Your task to perform on an android device: check the backup settings in the google photos Image 0: 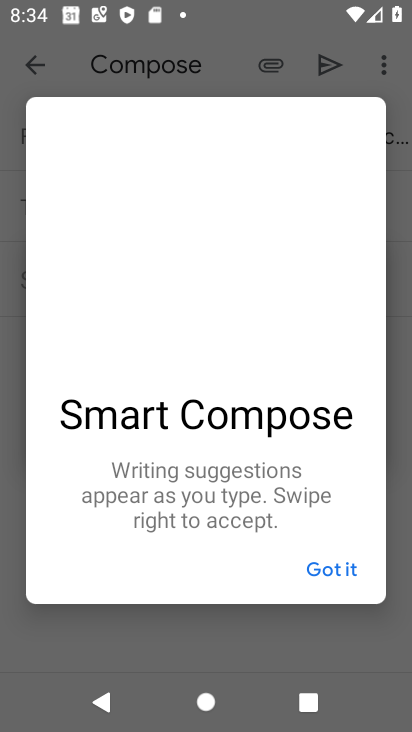
Step 0: press home button
Your task to perform on an android device: check the backup settings in the google photos Image 1: 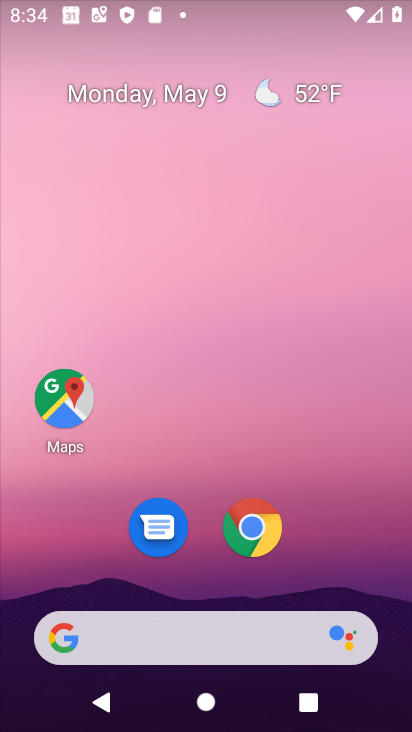
Step 1: drag from (220, 586) to (246, 77)
Your task to perform on an android device: check the backup settings in the google photos Image 2: 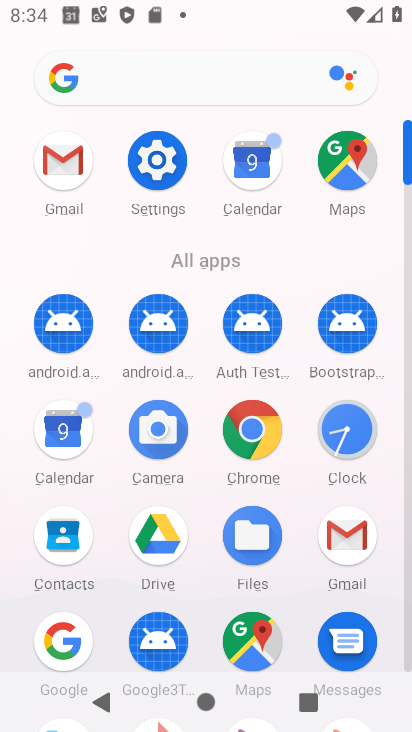
Step 2: click (157, 160)
Your task to perform on an android device: check the backup settings in the google photos Image 3: 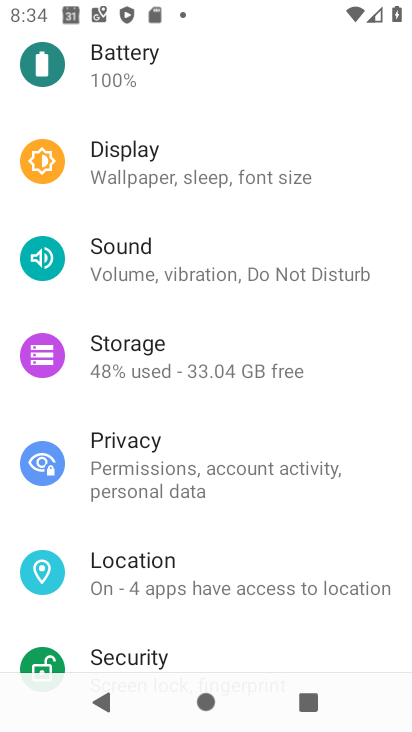
Step 3: drag from (214, 560) to (269, 13)
Your task to perform on an android device: check the backup settings in the google photos Image 4: 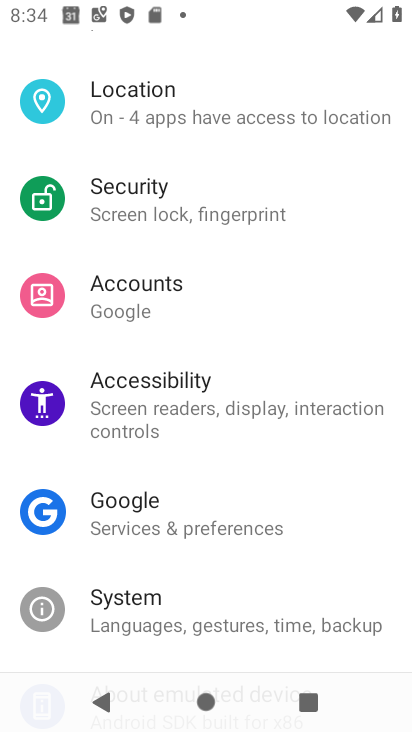
Step 4: click (162, 594)
Your task to perform on an android device: check the backup settings in the google photos Image 5: 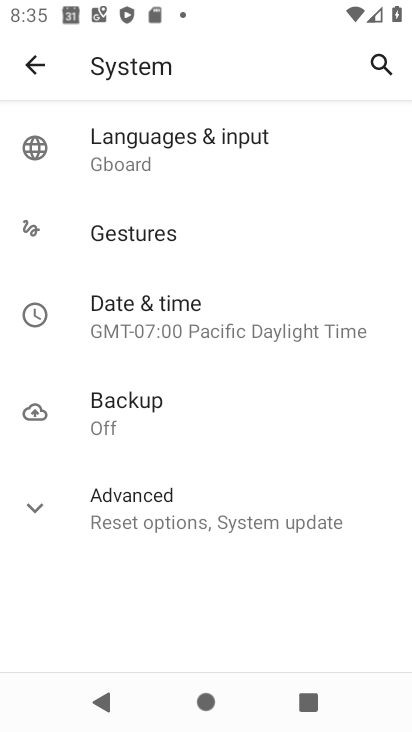
Step 5: click (150, 143)
Your task to perform on an android device: check the backup settings in the google photos Image 6: 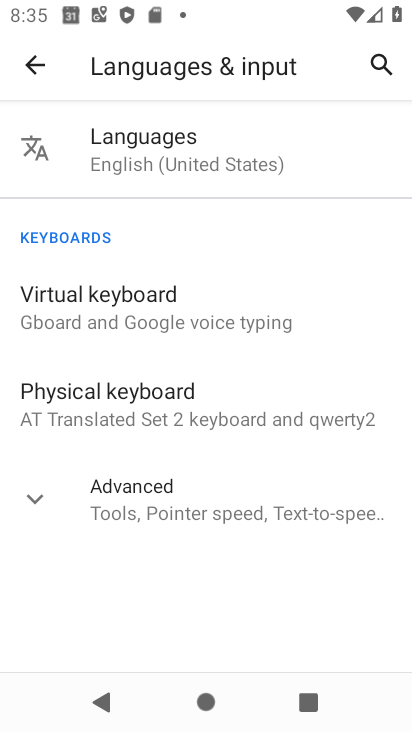
Step 6: click (104, 295)
Your task to perform on an android device: check the backup settings in the google photos Image 7: 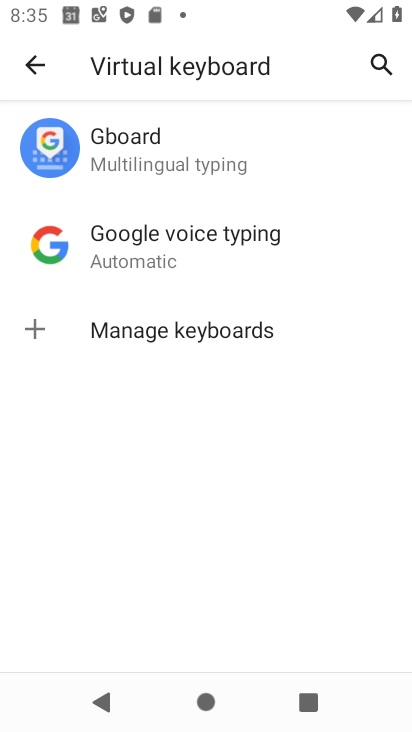
Step 7: click (119, 138)
Your task to perform on an android device: check the backup settings in the google photos Image 8: 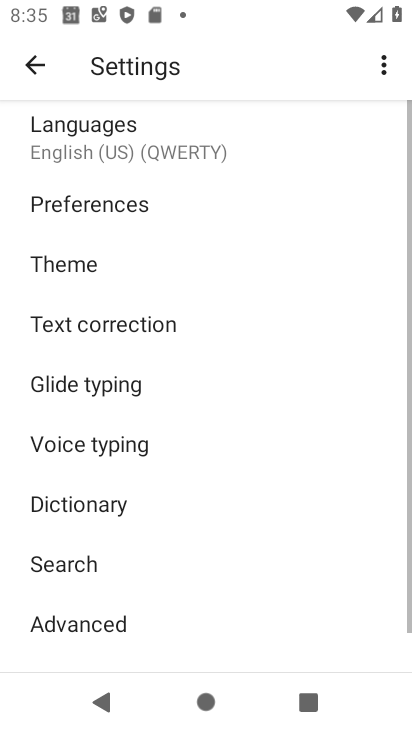
Step 8: click (124, 273)
Your task to perform on an android device: check the backup settings in the google photos Image 9: 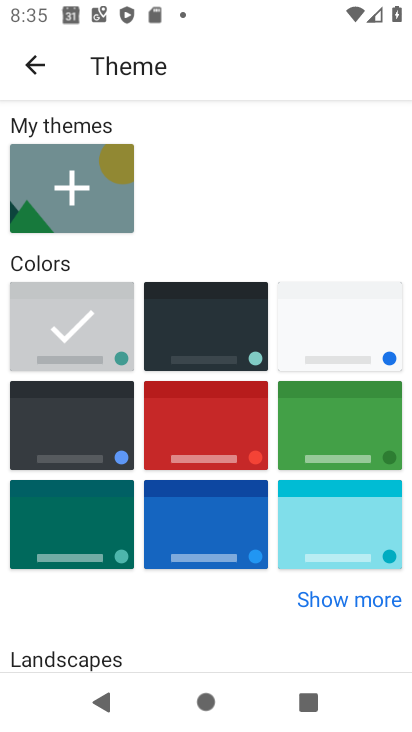
Step 9: click (189, 323)
Your task to perform on an android device: check the backup settings in the google photos Image 10: 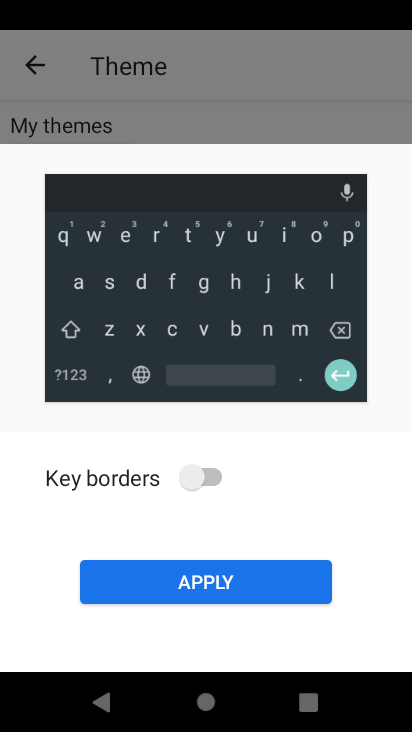
Step 10: click (196, 576)
Your task to perform on an android device: check the backup settings in the google photos Image 11: 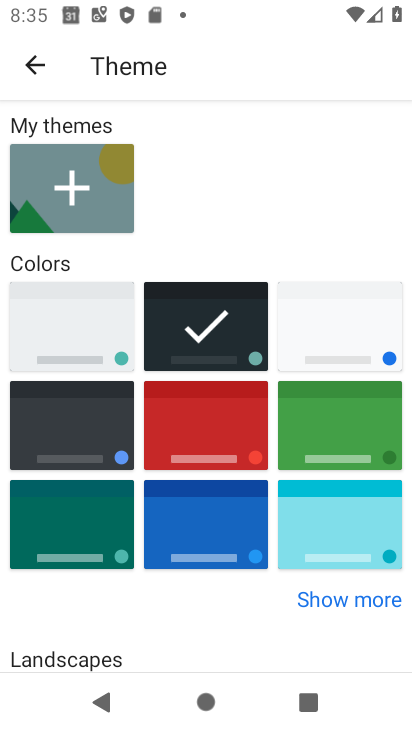
Step 11: task complete